Your task to perform on an android device: Go to notification settings Image 0: 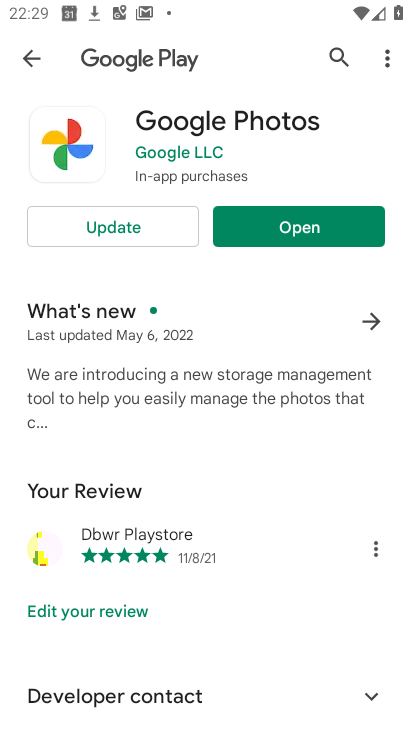
Step 0: press home button
Your task to perform on an android device: Go to notification settings Image 1: 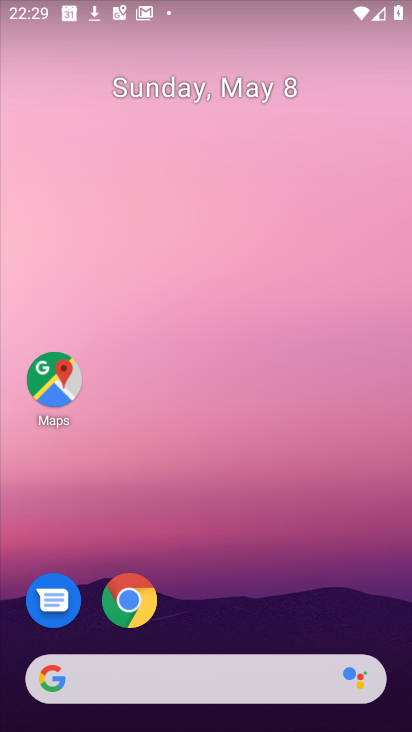
Step 1: drag from (262, 724) to (224, 142)
Your task to perform on an android device: Go to notification settings Image 2: 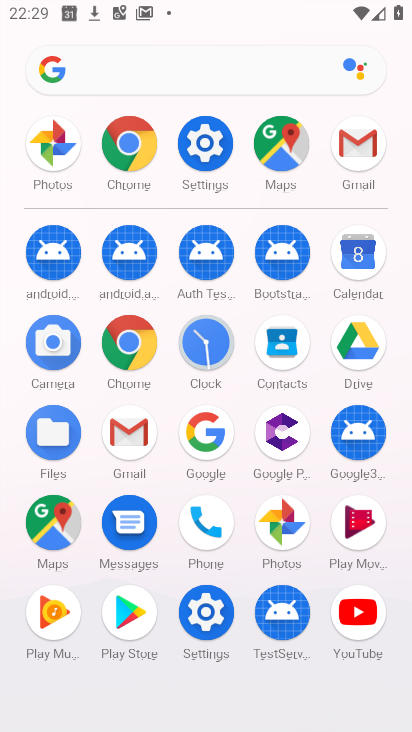
Step 2: click (205, 147)
Your task to perform on an android device: Go to notification settings Image 3: 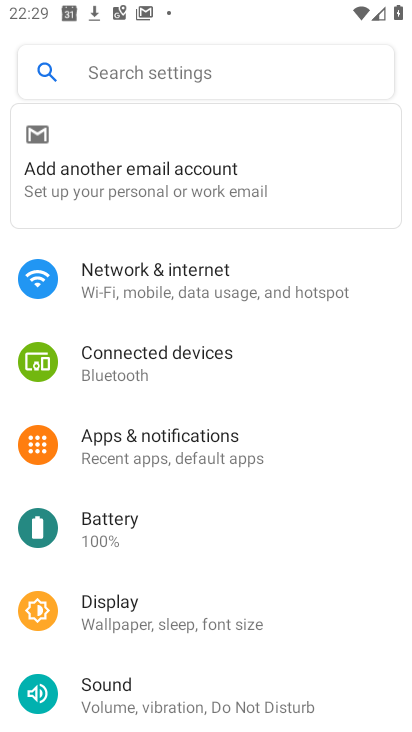
Step 3: click (167, 74)
Your task to perform on an android device: Go to notification settings Image 4: 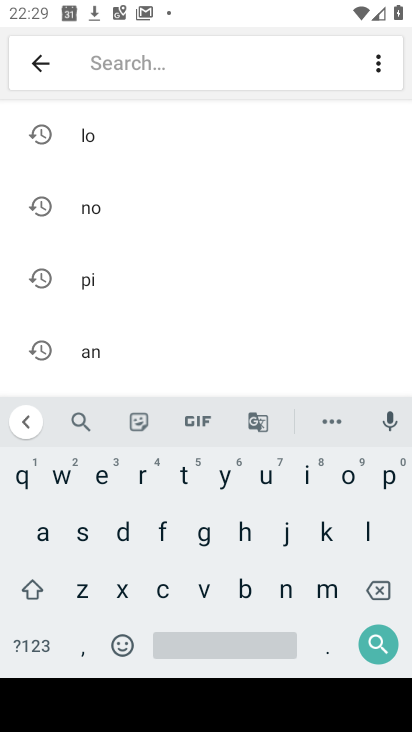
Step 4: click (132, 216)
Your task to perform on an android device: Go to notification settings Image 5: 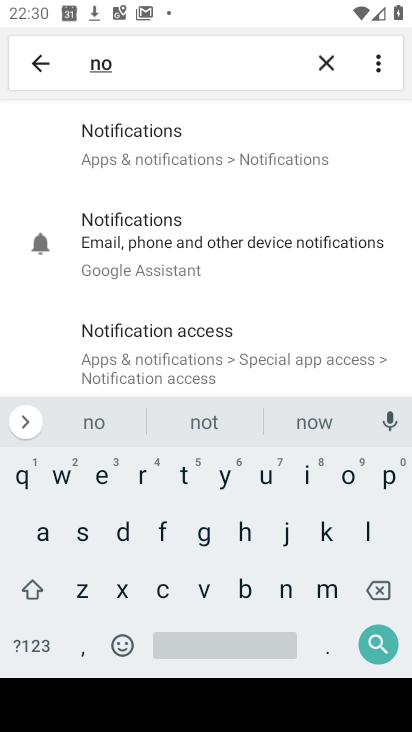
Step 5: click (186, 164)
Your task to perform on an android device: Go to notification settings Image 6: 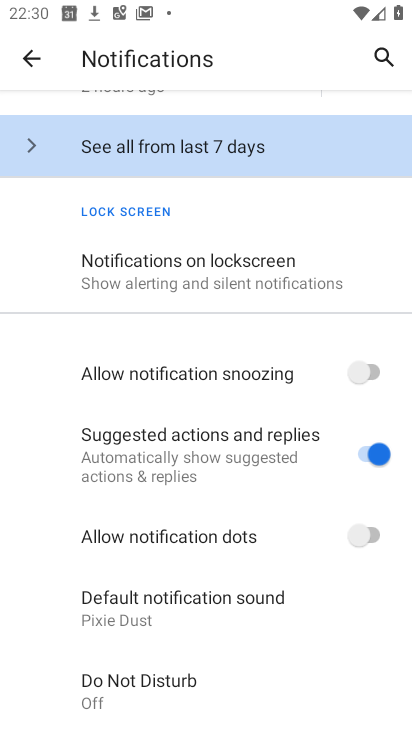
Step 6: click (154, 266)
Your task to perform on an android device: Go to notification settings Image 7: 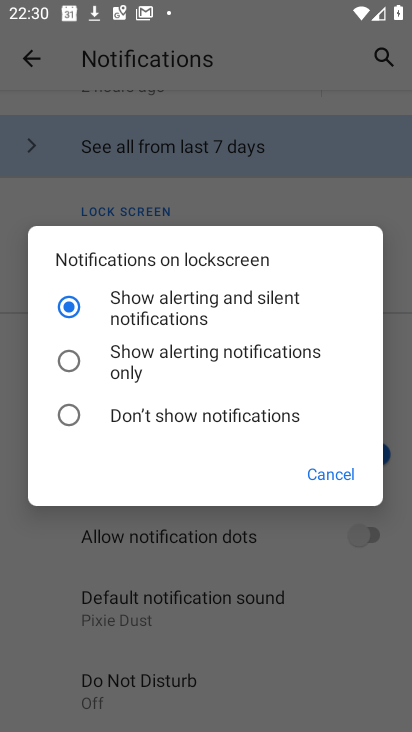
Step 7: task complete